Your task to perform on an android device: Open accessibility settings Image 0: 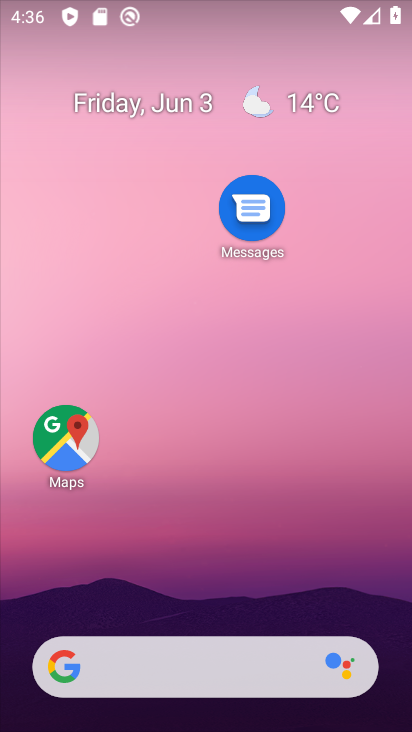
Step 0: drag from (219, 593) to (267, 213)
Your task to perform on an android device: Open accessibility settings Image 1: 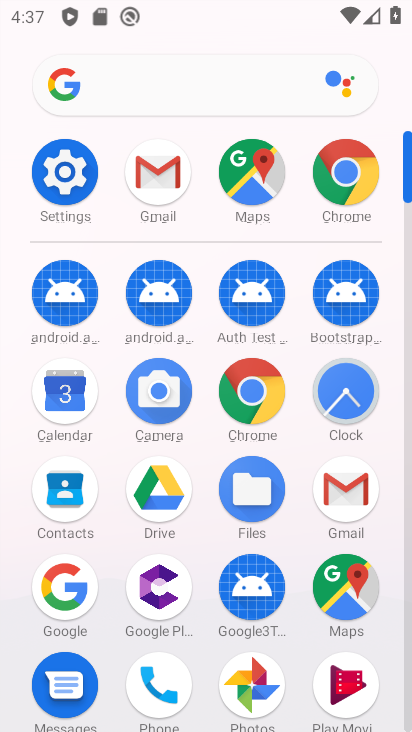
Step 1: drag from (305, 536) to (352, 188)
Your task to perform on an android device: Open accessibility settings Image 2: 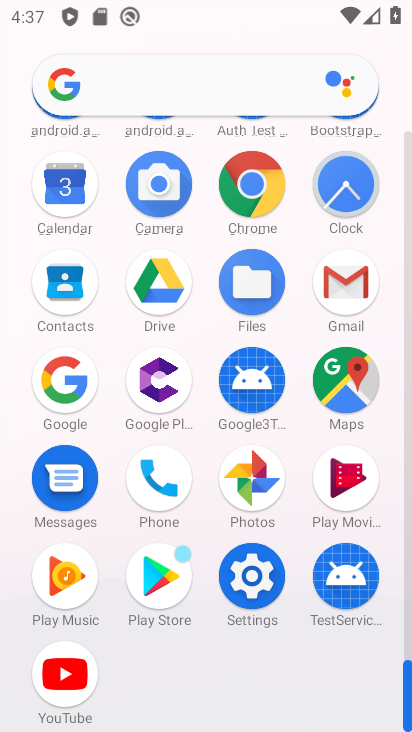
Step 2: click (245, 574)
Your task to perform on an android device: Open accessibility settings Image 3: 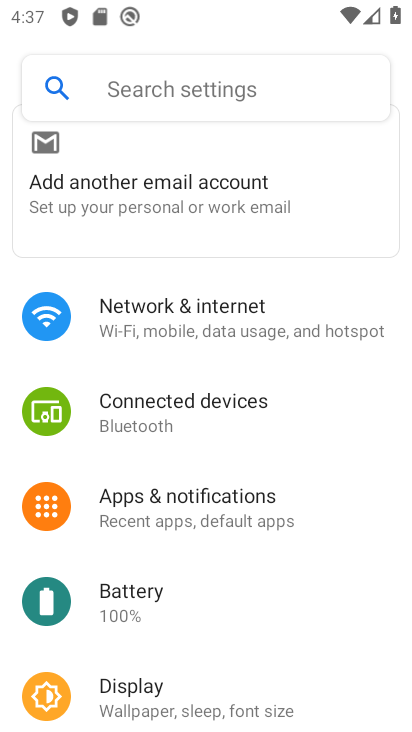
Step 3: drag from (206, 630) to (274, 371)
Your task to perform on an android device: Open accessibility settings Image 4: 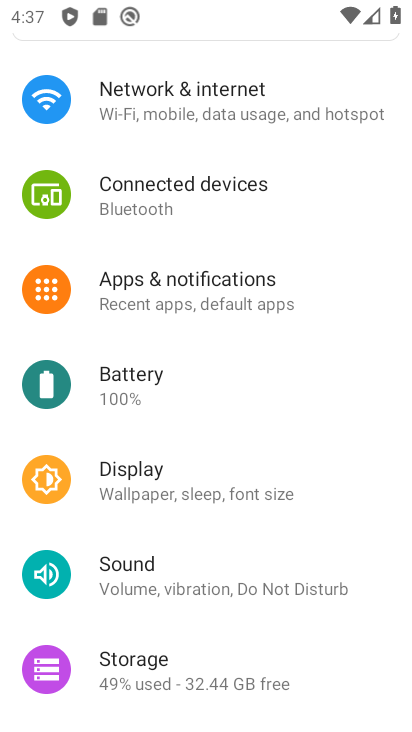
Step 4: drag from (233, 600) to (262, 312)
Your task to perform on an android device: Open accessibility settings Image 5: 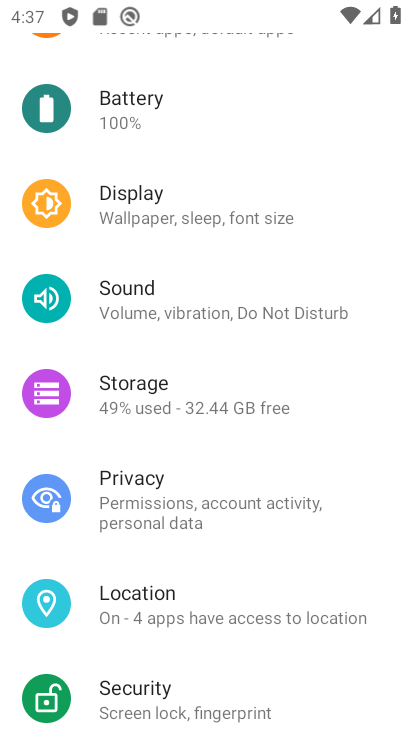
Step 5: drag from (242, 606) to (228, 364)
Your task to perform on an android device: Open accessibility settings Image 6: 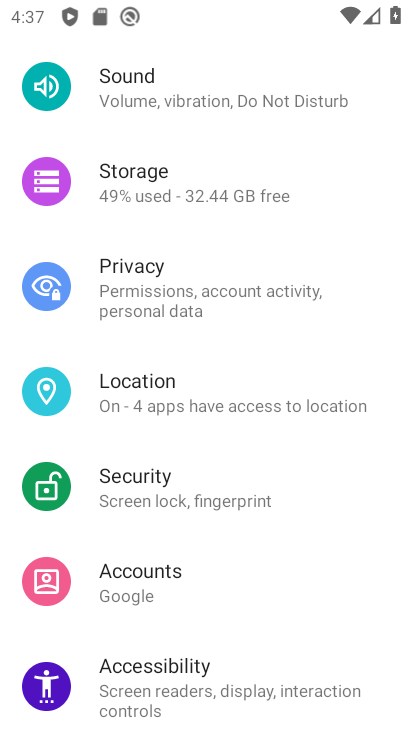
Step 6: click (195, 682)
Your task to perform on an android device: Open accessibility settings Image 7: 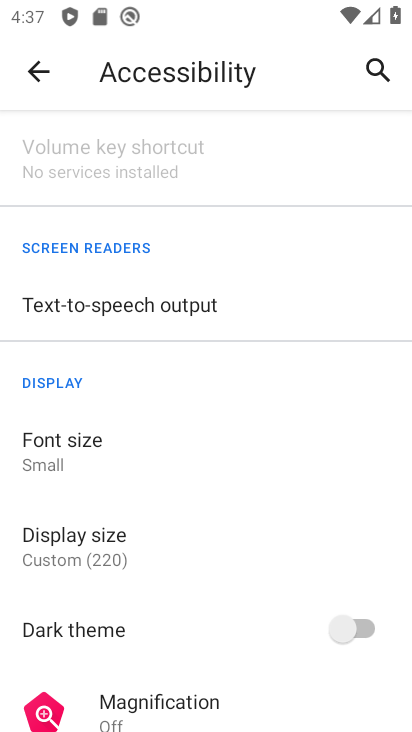
Step 7: task complete